Your task to perform on an android device: Go to accessibility settings Image 0: 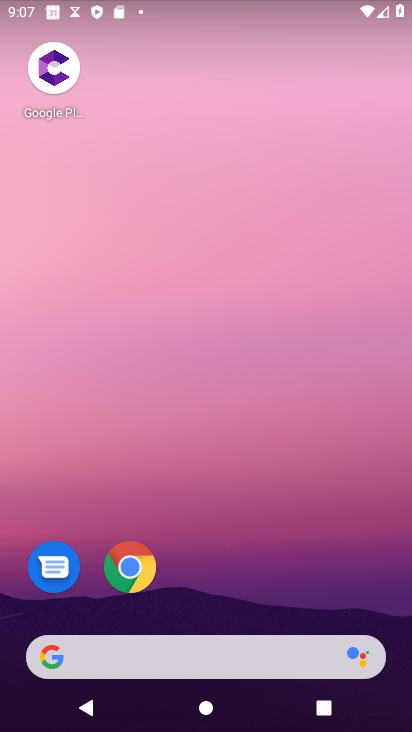
Step 0: press home button
Your task to perform on an android device: Go to accessibility settings Image 1: 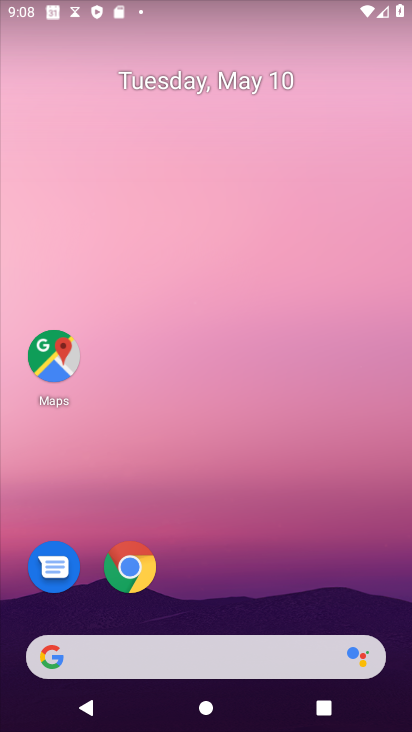
Step 1: drag from (0, 640) to (145, 219)
Your task to perform on an android device: Go to accessibility settings Image 2: 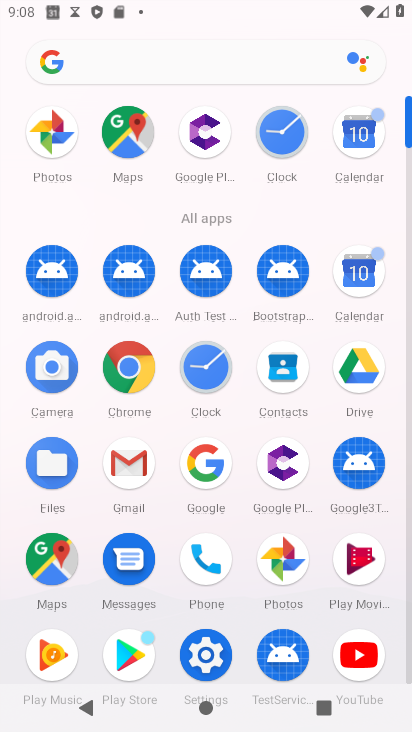
Step 2: click (201, 659)
Your task to perform on an android device: Go to accessibility settings Image 3: 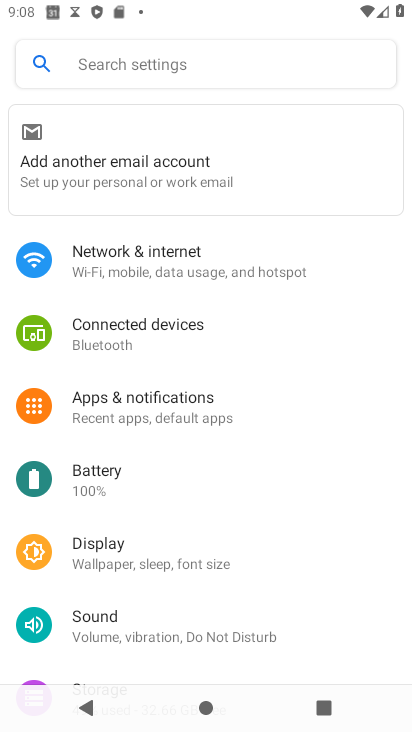
Step 3: drag from (100, 650) to (228, 231)
Your task to perform on an android device: Go to accessibility settings Image 4: 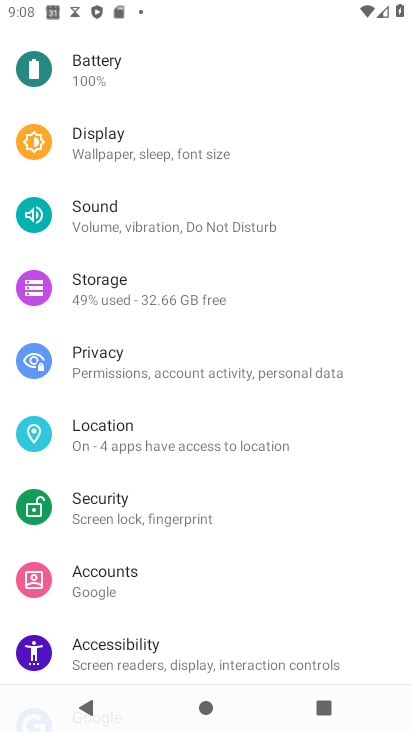
Step 4: click (161, 642)
Your task to perform on an android device: Go to accessibility settings Image 5: 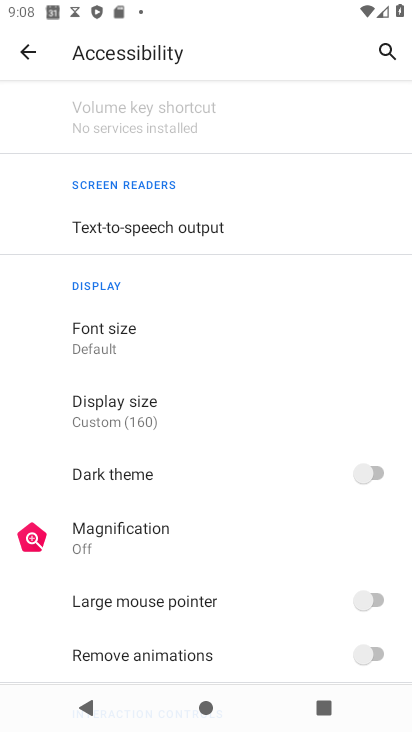
Step 5: task complete